Your task to perform on an android device: Open Chrome and go to settings Image 0: 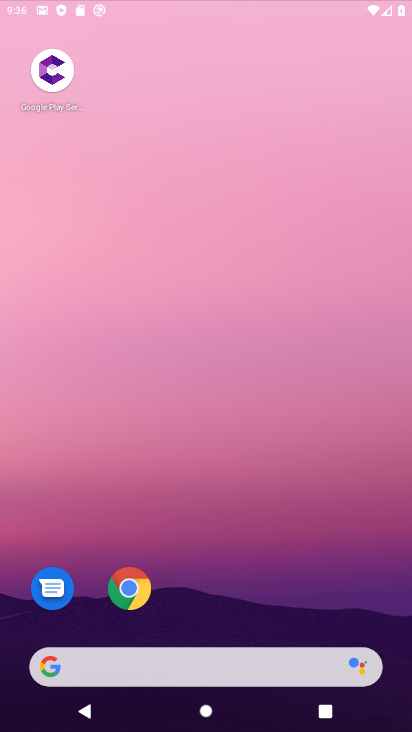
Step 0: drag from (227, 18) to (264, 9)
Your task to perform on an android device: Open Chrome and go to settings Image 1: 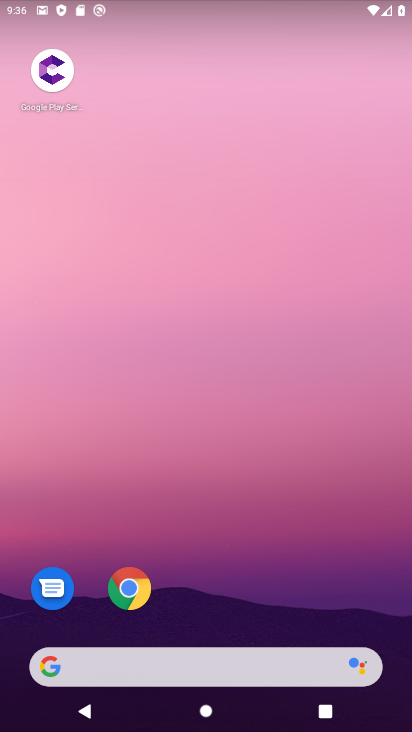
Step 1: click (134, 577)
Your task to perform on an android device: Open Chrome and go to settings Image 2: 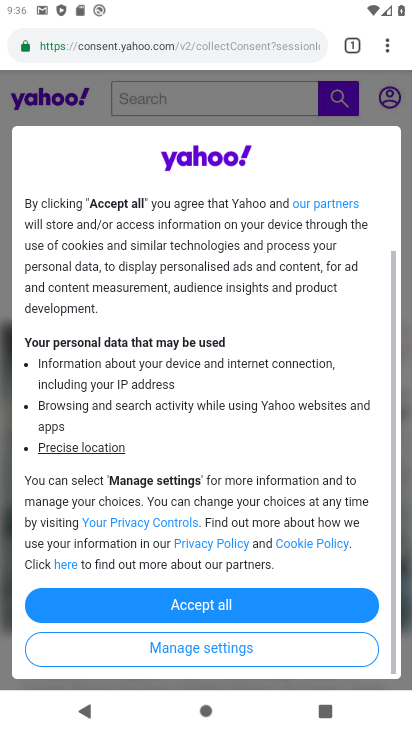
Step 2: click (383, 42)
Your task to perform on an android device: Open Chrome and go to settings Image 3: 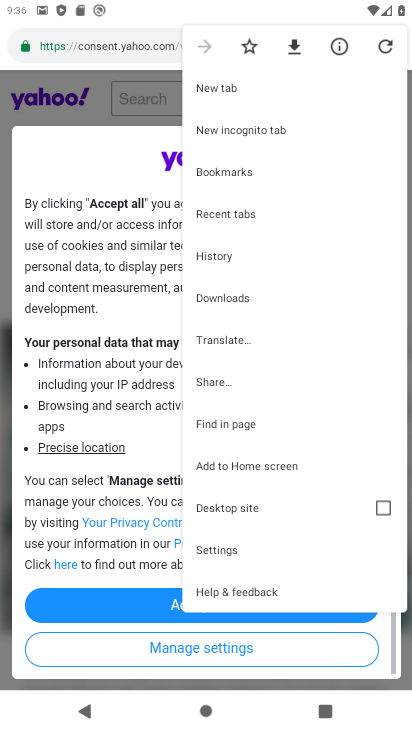
Step 3: click (214, 550)
Your task to perform on an android device: Open Chrome and go to settings Image 4: 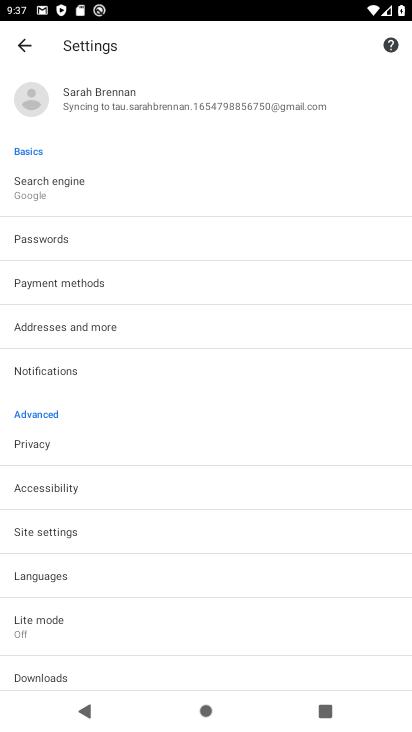
Step 4: task complete